Your task to perform on an android device: Go to Yahoo.com Image 0: 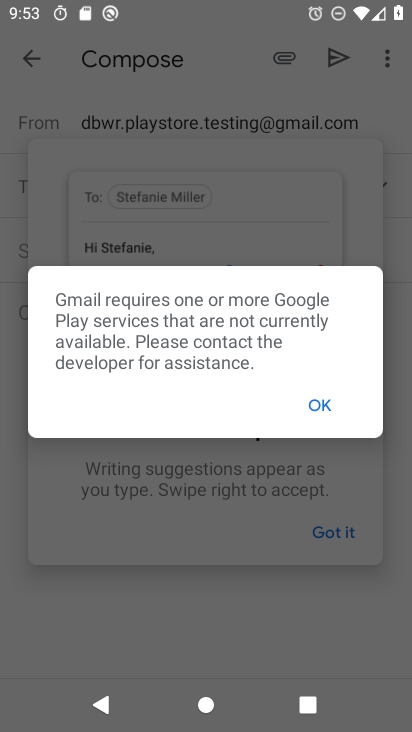
Step 0: press home button
Your task to perform on an android device: Go to Yahoo.com Image 1: 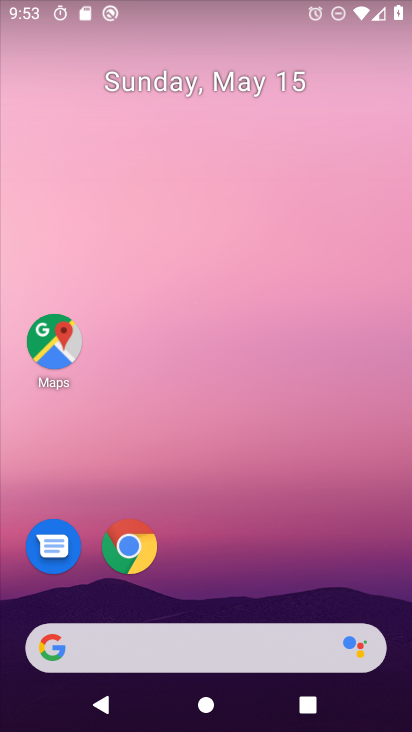
Step 1: click (280, 645)
Your task to perform on an android device: Go to Yahoo.com Image 2: 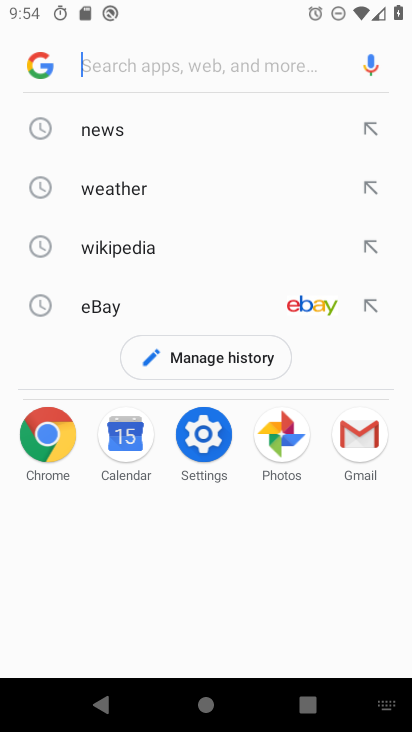
Step 2: type "yahoo.com"
Your task to perform on an android device: Go to Yahoo.com Image 3: 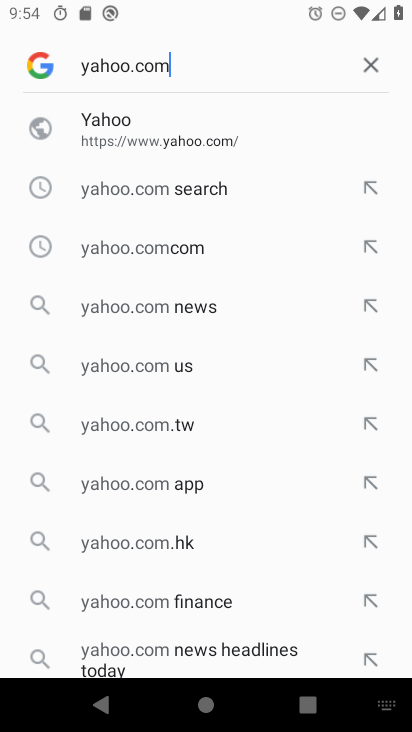
Step 3: click (107, 120)
Your task to perform on an android device: Go to Yahoo.com Image 4: 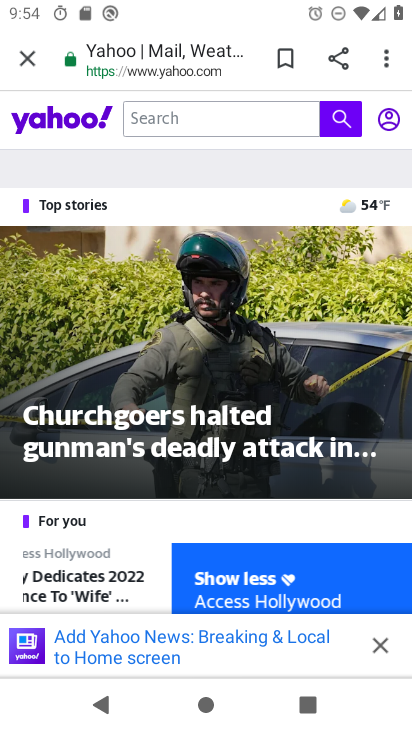
Step 4: task complete